Your task to perform on an android device: add a label to a message in the gmail app Image 0: 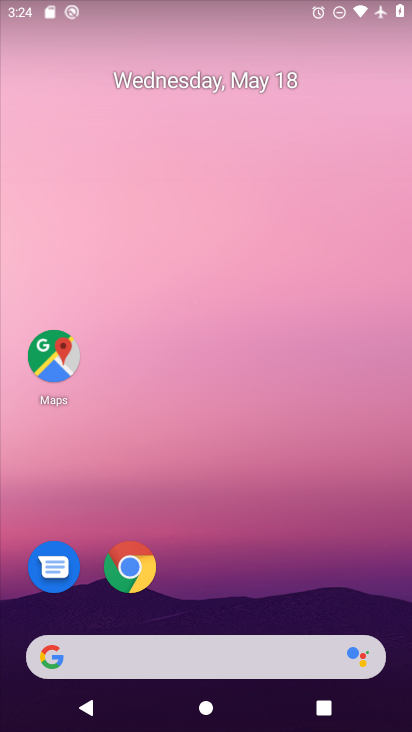
Step 0: drag from (293, 594) to (286, 192)
Your task to perform on an android device: add a label to a message in the gmail app Image 1: 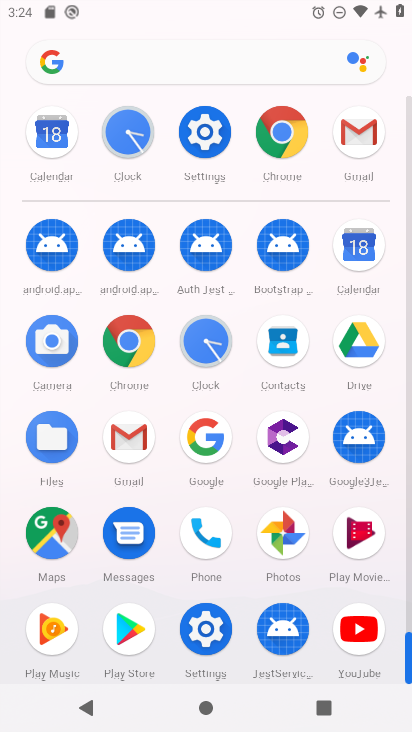
Step 1: click (132, 428)
Your task to perform on an android device: add a label to a message in the gmail app Image 2: 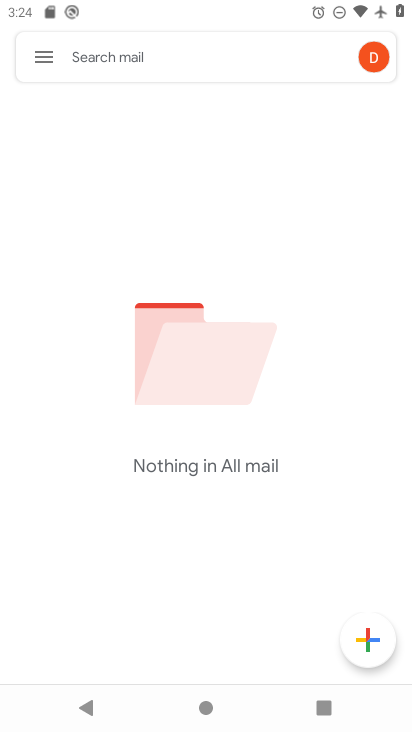
Step 2: click (40, 48)
Your task to perform on an android device: add a label to a message in the gmail app Image 3: 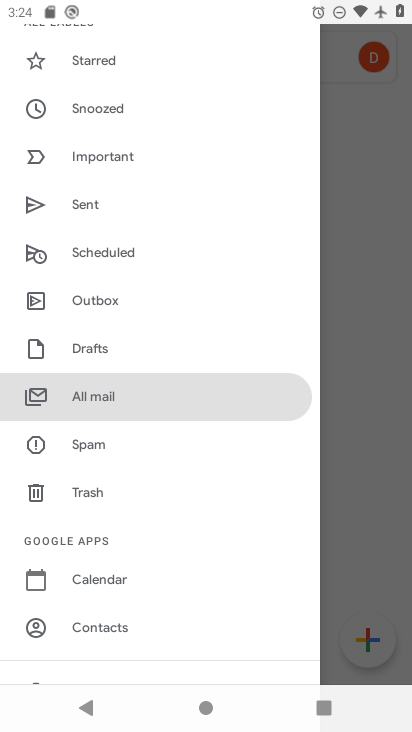
Step 3: task complete